Your task to perform on an android device: toggle improve location accuracy Image 0: 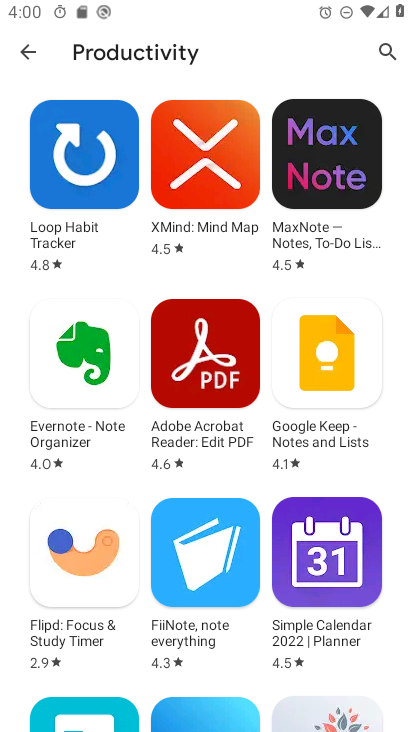
Step 0: press home button
Your task to perform on an android device: toggle improve location accuracy Image 1: 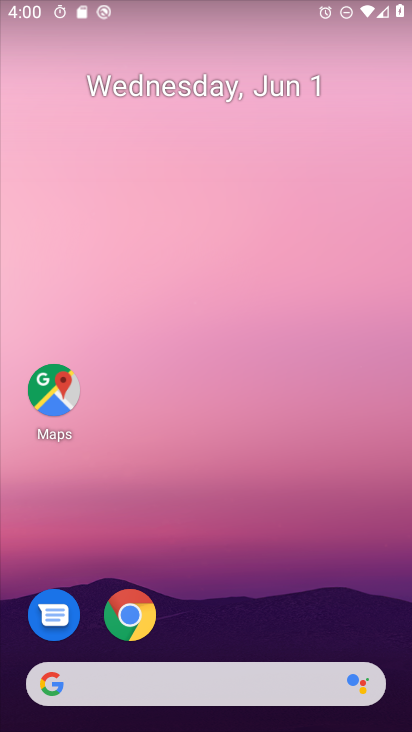
Step 1: drag from (200, 691) to (220, 34)
Your task to perform on an android device: toggle improve location accuracy Image 2: 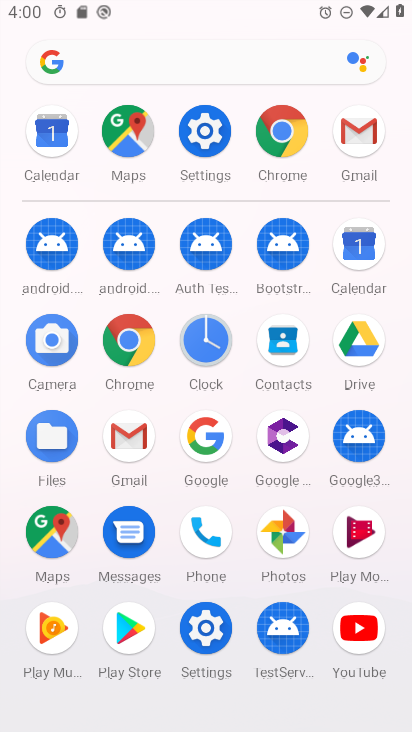
Step 2: click (205, 113)
Your task to perform on an android device: toggle improve location accuracy Image 3: 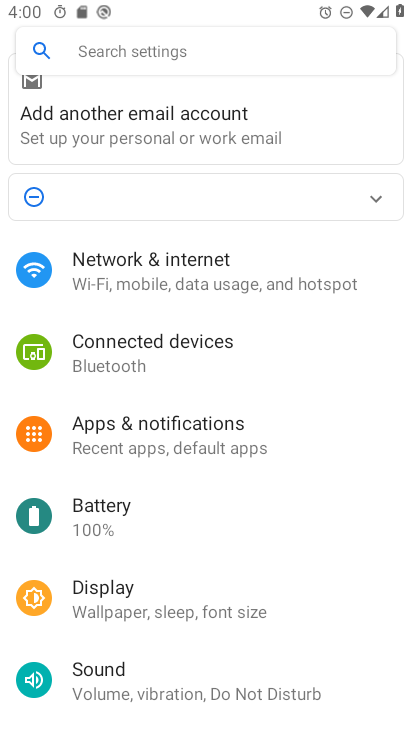
Step 3: drag from (203, 690) to (251, 262)
Your task to perform on an android device: toggle improve location accuracy Image 4: 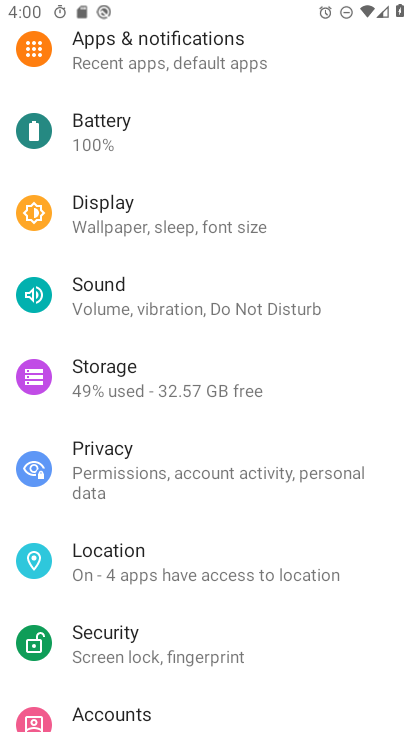
Step 4: click (190, 569)
Your task to perform on an android device: toggle improve location accuracy Image 5: 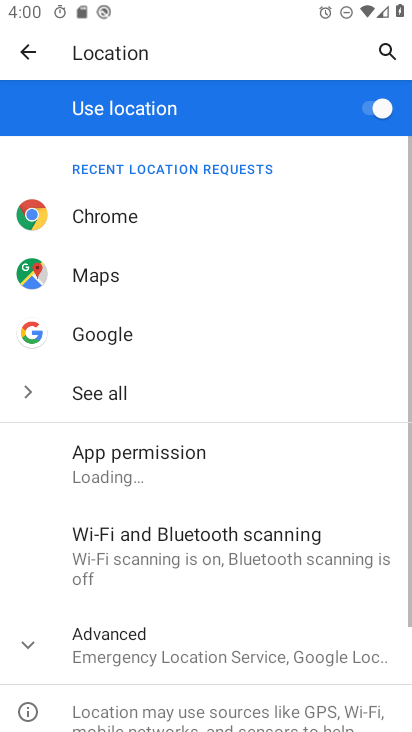
Step 5: drag from (195, 654) to (254, 279)
Your task to perform on an android device: toggle improve location accuracy Image 6: 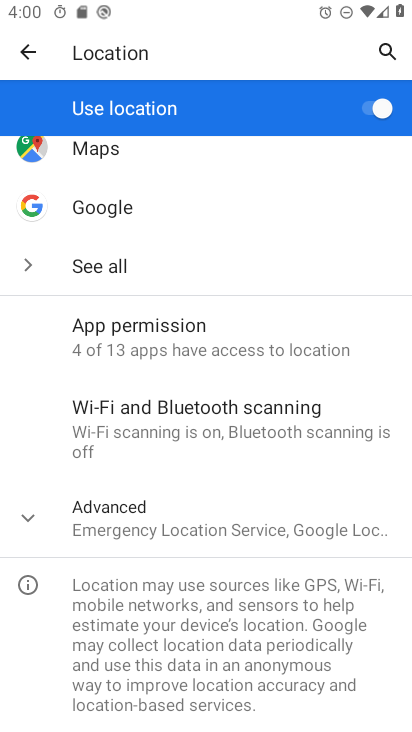
Step 6: click (184, 519)
Your task to perform on an android device: toggle improve location accuracy Image 7: 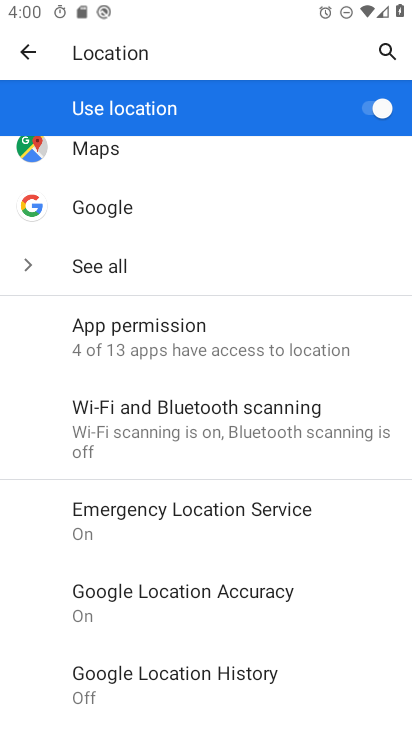
Step 7: click (232, 619)
Your task to perform on an android device: toggle improve location accuracy Image 8: 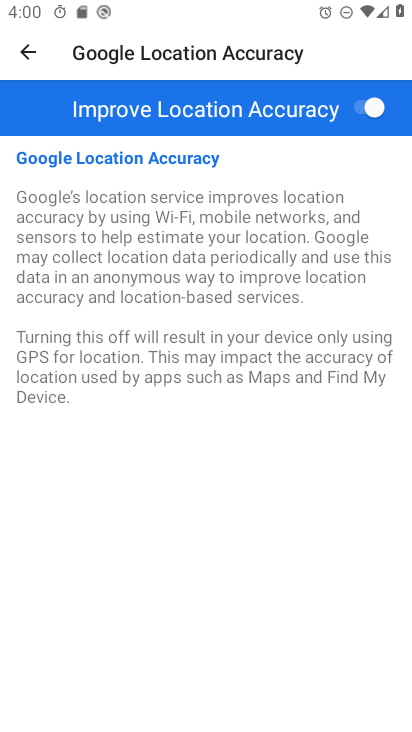
Step 8: click (357, 110)
Your task to perform on an android device: toggle improve location accuracy Image 9: 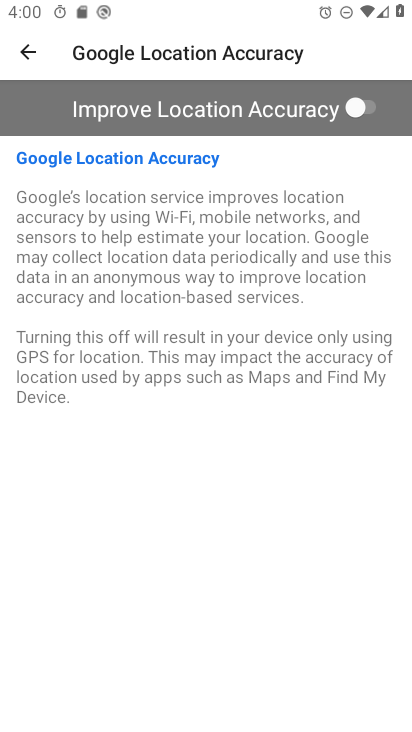
Step 9: task complete